Your task to perform on an android device: all mails in gmail Image 0: 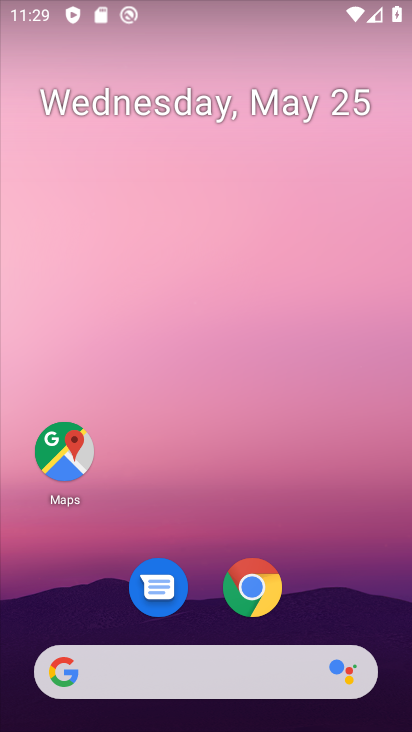
Step 0: press home button
Your task to perform on an android device: all mails in gmail Image 1: 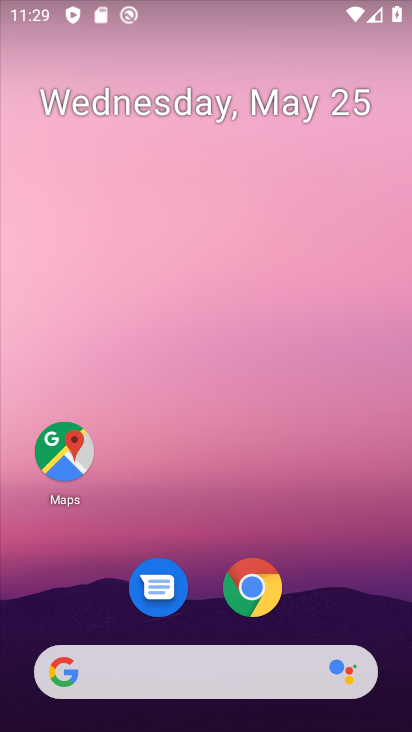
Step 1: drag from (267, 705) to (203, 173)
Your task to perform on an android device: all mails in gmail Image 2: 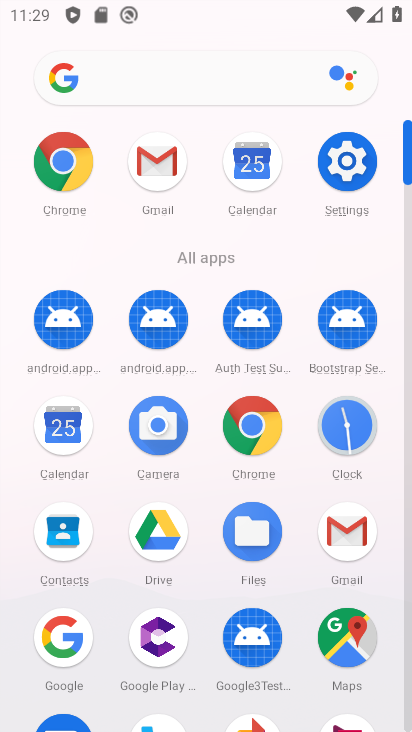
Step 2: click (167, 169)
Your task to perform on an android device: all mails in gmail Image 3: 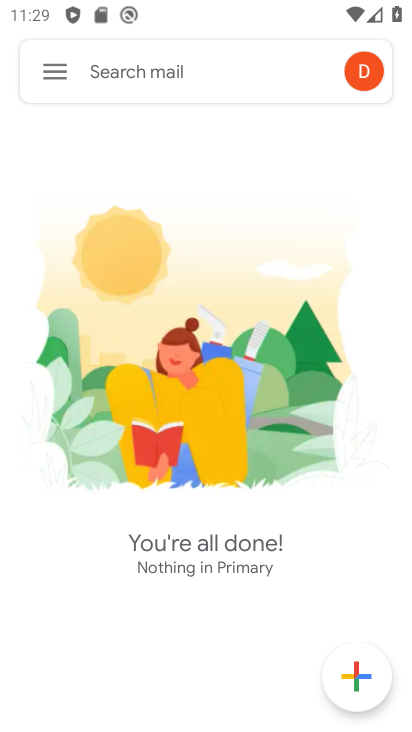
Step 3: click (60, 85)
Your task to perform on an android device: all mails in gmail Image 4: 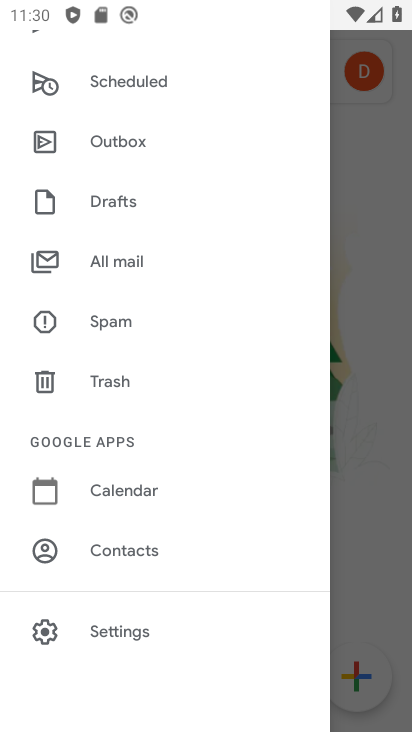
Step 4: click (154, 269)
Your task to perform on an android device: all mails in gmail Image 5: 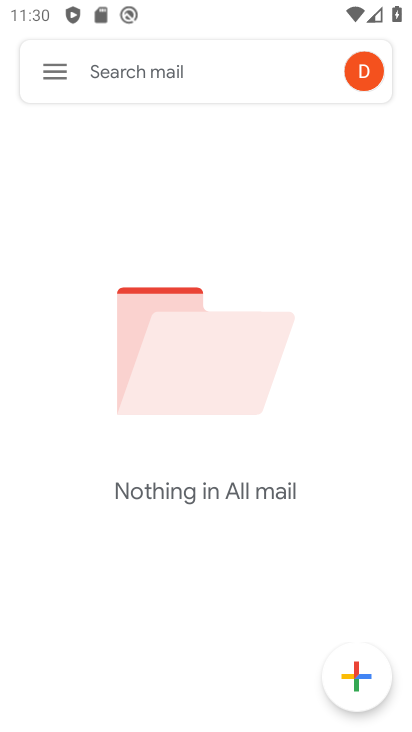
Step 5: task complete